Your task to perform on an android device: When is my next appointment? Image 0: 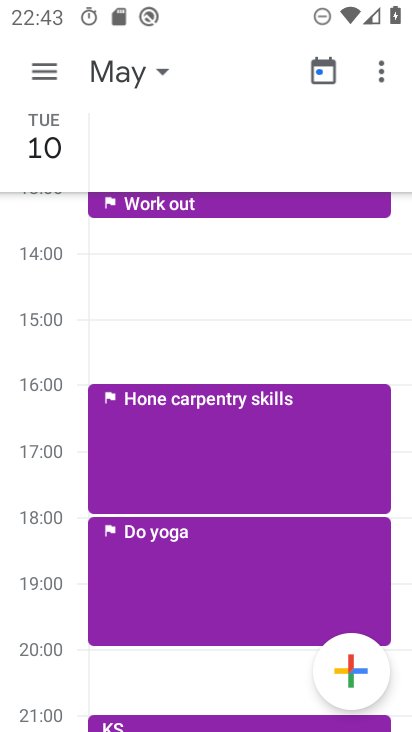
Step 0: drag from (302, 287) to (299, 588)
Your task to perform on an android device: When is my next appointment? Image 1: 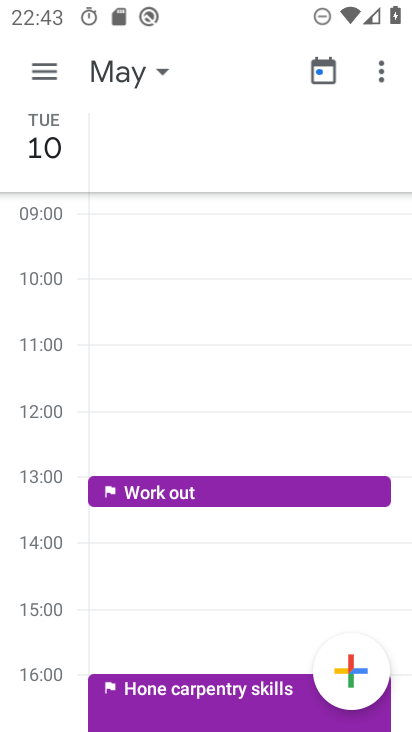
Step 1: task complete